Your task to perform on an android device: Open Android settings Image 0: 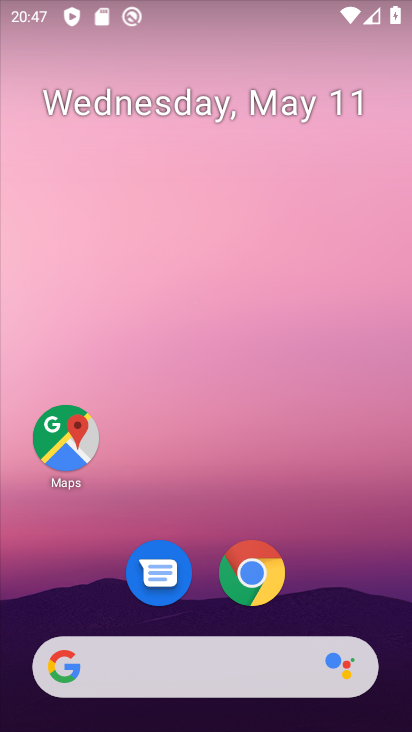
Step 0: drag from (352, 591) to (338, 106)
Your task to perform on an android device: Open Android settings Image 1: 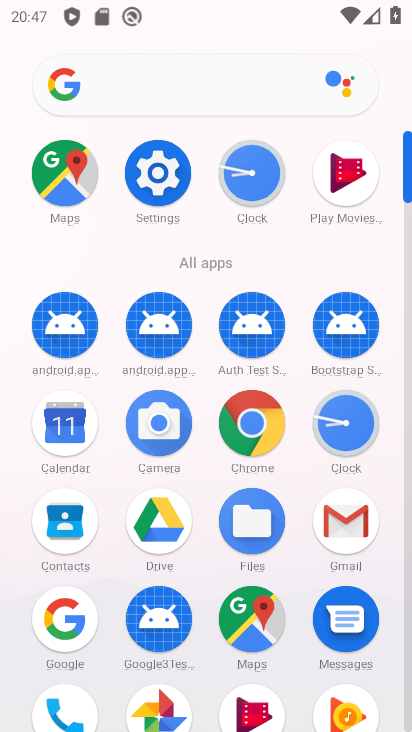
Step 1: click (172, 191)
Your task to perform on an android device: Open Android settings Image 2: 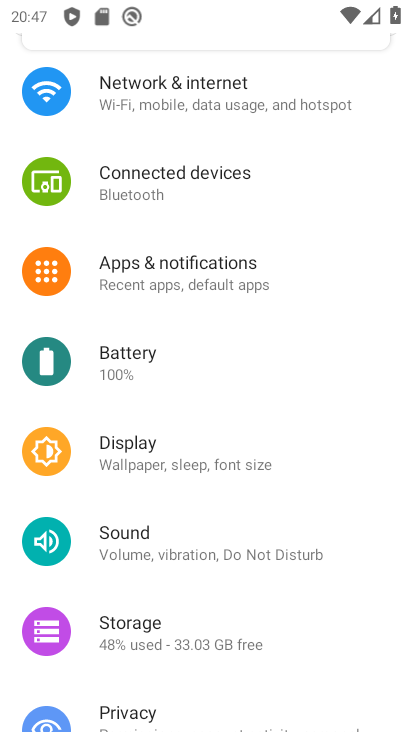
Step 2: task complete